Your task to perform on an android device: add a label to a message in the gmail app Image 0: 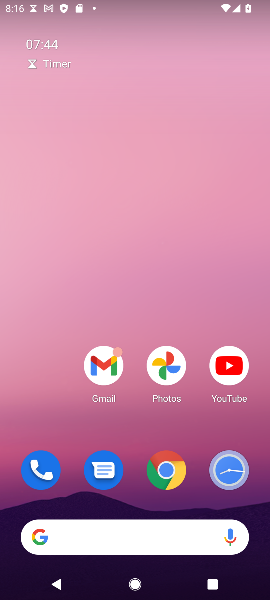
Step 0: click (102, 361)
Your task to perform on an android device: add a label to a message in the gmail app Image 1: 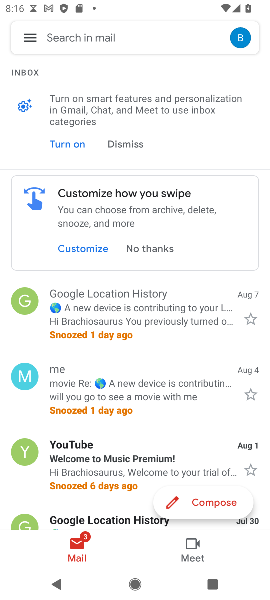
Step 1: drag from (62, 459) to (142, 109)
Your task to perform on an android device: add a label to a message in the gmail app Image 2: 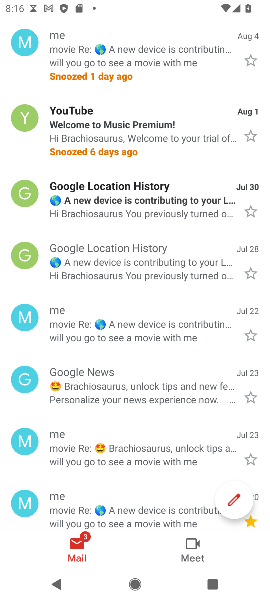
Step 2: click (28, 202)
Your task to perform on an android device: add a label to a message in the gmail app Image 3: 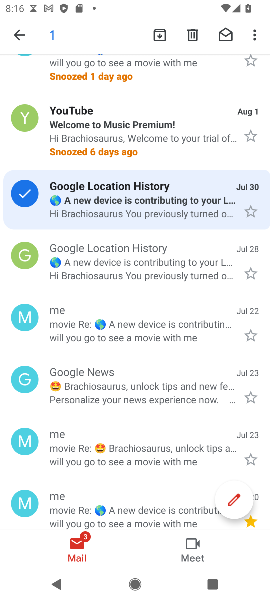
Step 3: click (259, 35)
Your task to perform on an android device: add a label to a message in the gmail app Image 4: 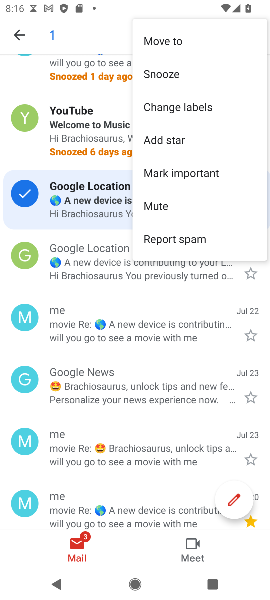
Step 4: click (186, 107)
Your task to perform on an android device: add a label to a message in the gmail app Image 5: 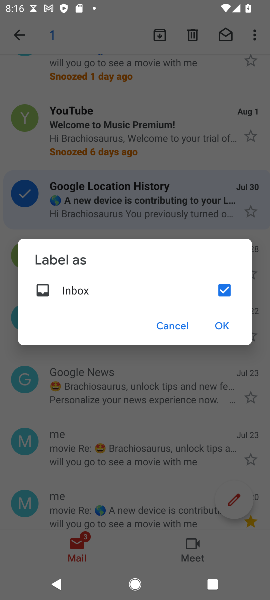
Step 5: click (199, 288)
Your task to perform on an android device: add a label to a message in the gmail app Image 6: 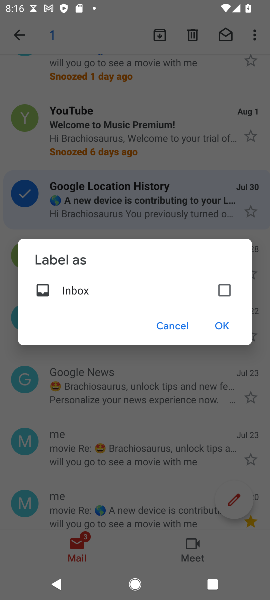
Step 6: click (225, 318)
Your task to perform on an android device: add a label to a message in the gmail app Image 7: 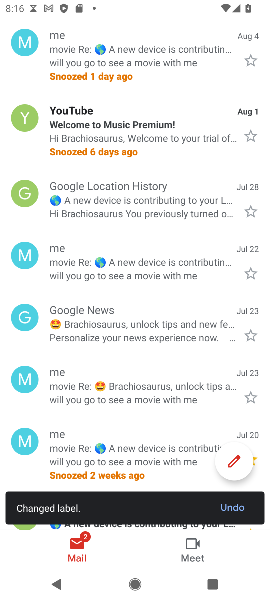
Step 7: task complete